Your task to perform on an android device: Go to wifi settings Image 0: 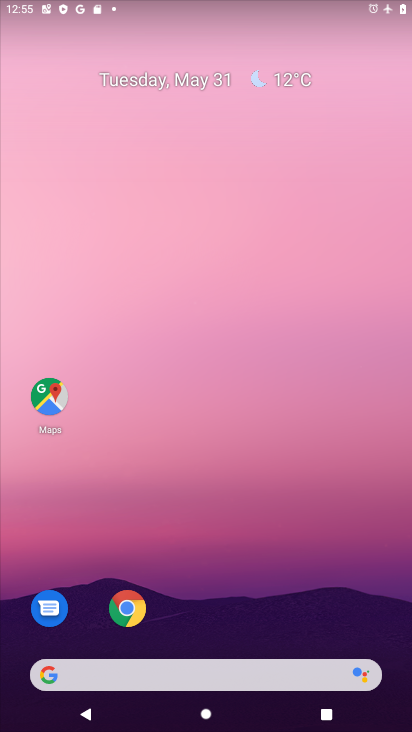
Step 0: drag from (189, 610) to (224, 65)
Your task to perform on an android device: Go to wifi settings Image 1: 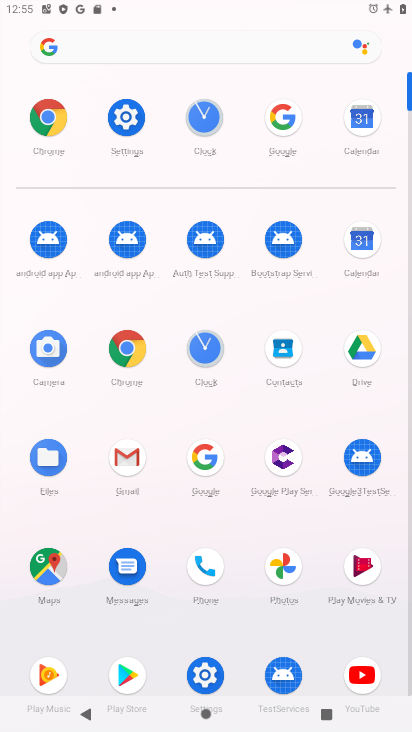
Step 1: click (119, 112)
Your task to perform on an android device: Go to wifi settings Image 2: 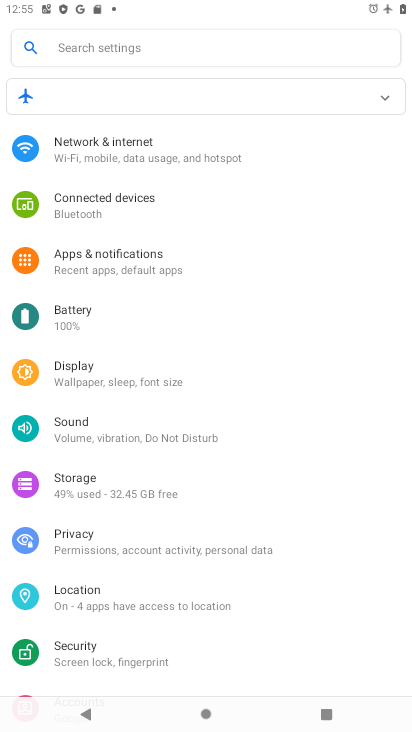
Step 2: click (167, 158)
Your task to perform on an android device: Go to wifi settings Image 3: 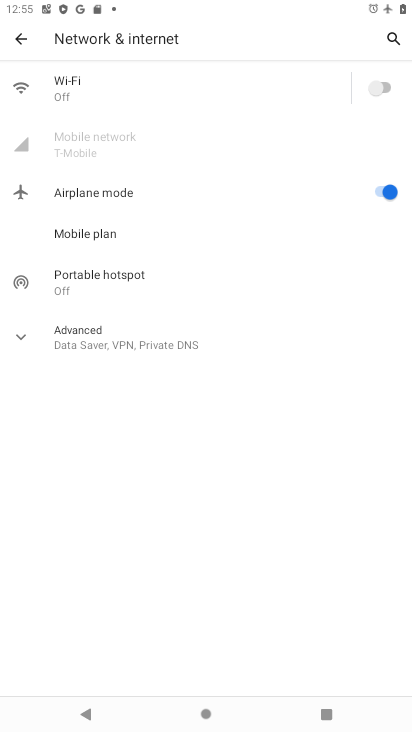
Step 3: click (131, 96)
Your task to perform on an android device: Go to wifi settings Image 4: 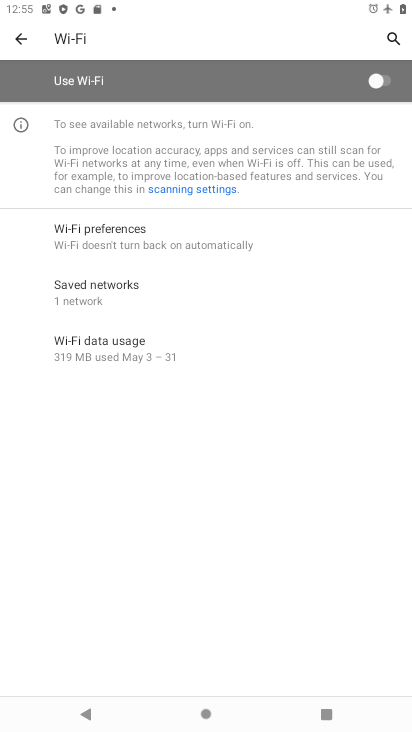
Step 4: click (379, 80)
Your task to perform on an android device: Go to wifi settings Image 5: 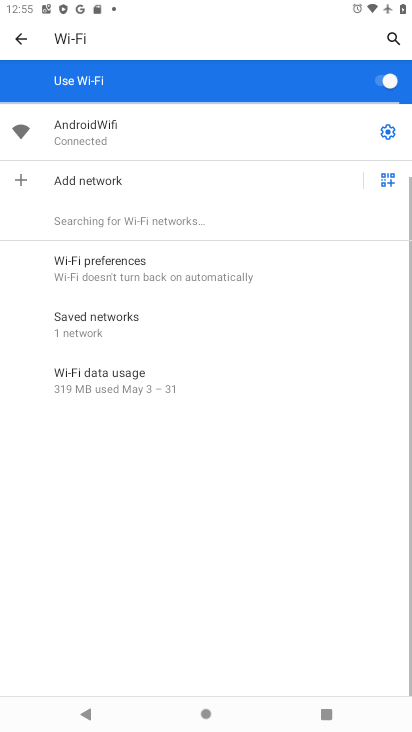
Step 5: click (137, 130)
Your task to perform on an android device: Go to wifi settings Image 6: 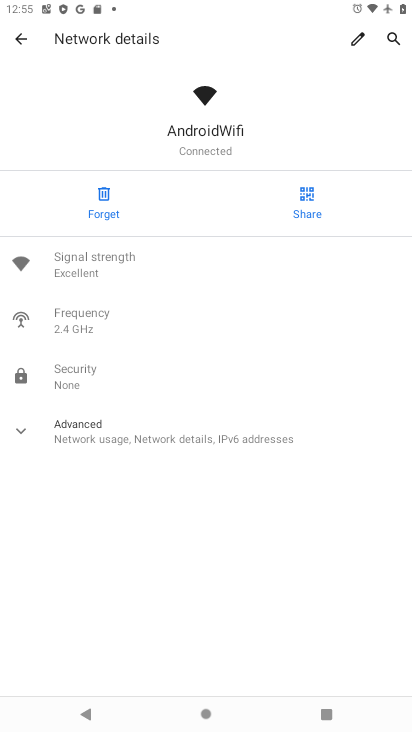
Step 6: task complete